Your task to perform on an android device: find photos in the google photos app Image 0: 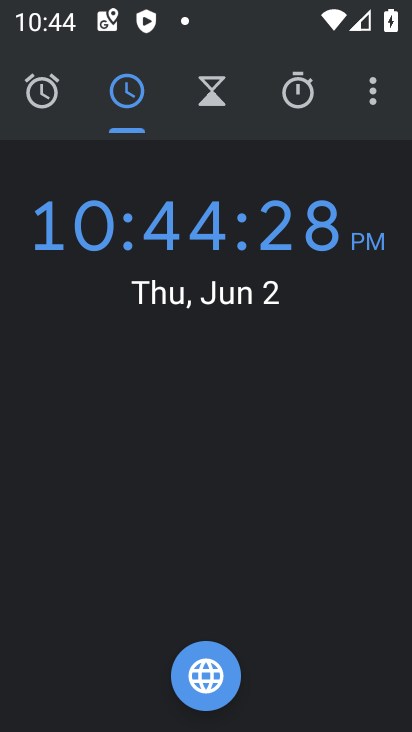
Step 0: press home button
Your task to perform on an android device: find photos in the google photos app Image 1: 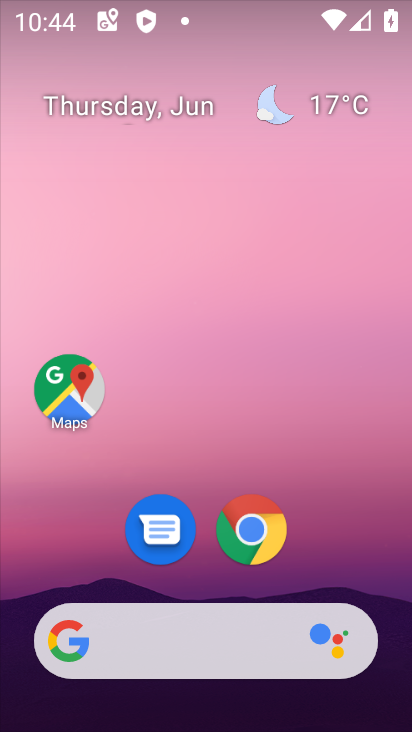
Step 1: drag from (310, 577) to (329, 2)
Your task to perform on an android device: find photos in the google photos app Image 2: 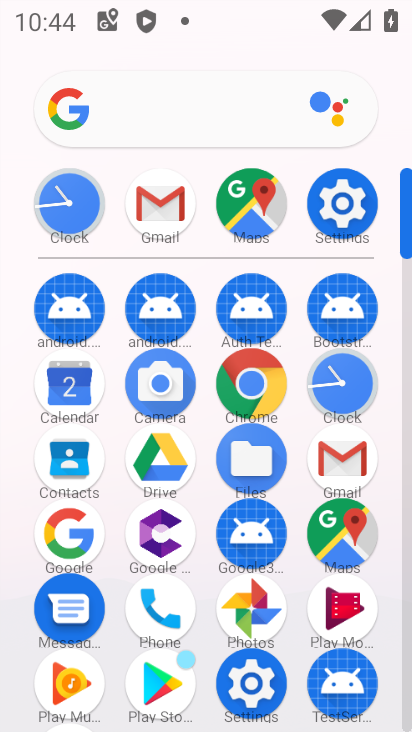
Step 2: click (252, 603)
Your task to perform on an android device: find photos in the google photos app Image 3: 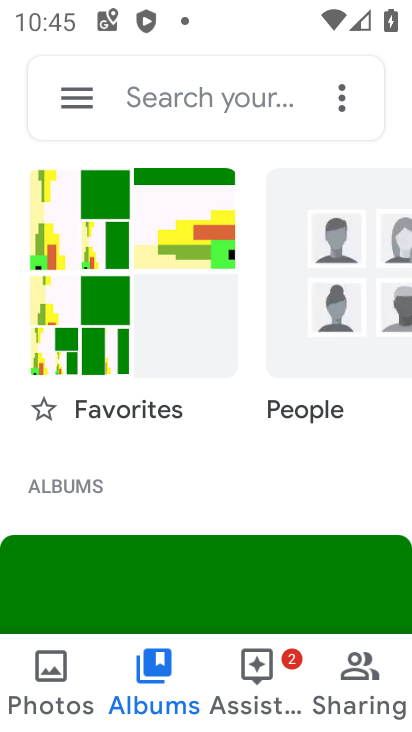
Step 3: click (45, 679)
Your task to perform on an android device: find photos in the google photos app Image 4: 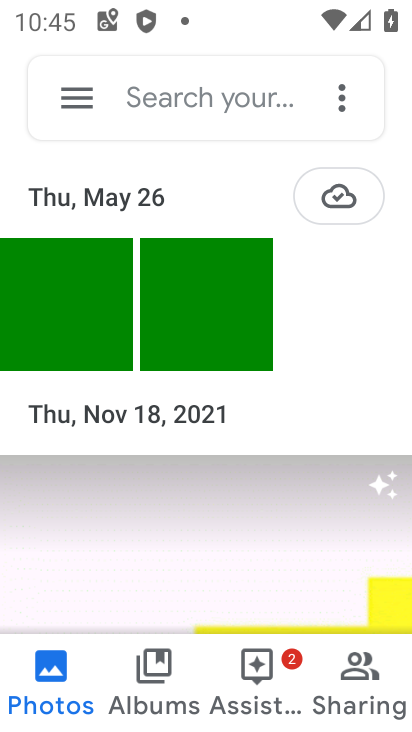
Step 4: task complete